Your task to perform on an android device: Go to CNN.com Image 0: 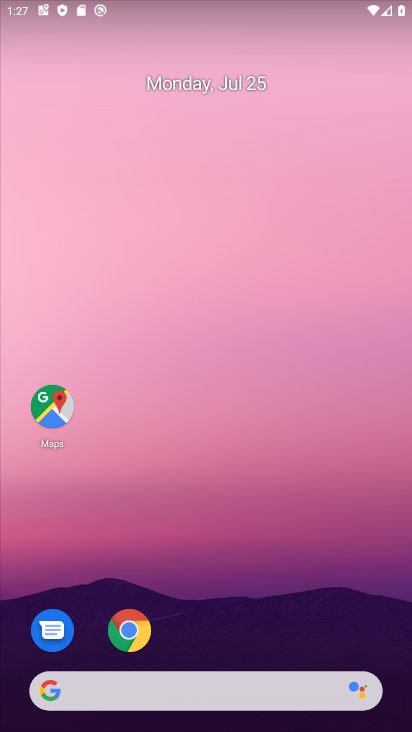
Step 0: click (132, 695)
Your task to perform on an android device: Go to CNN.com Image 1: 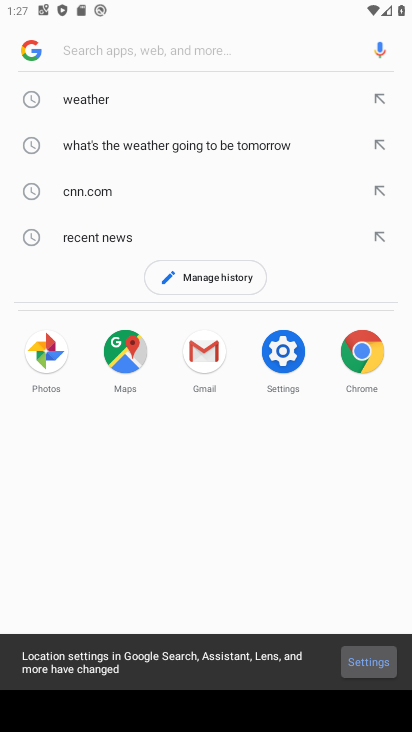
Step 1: type "cnn.com"
Your task to perform on an android device: Go to CNN.com Image 2: 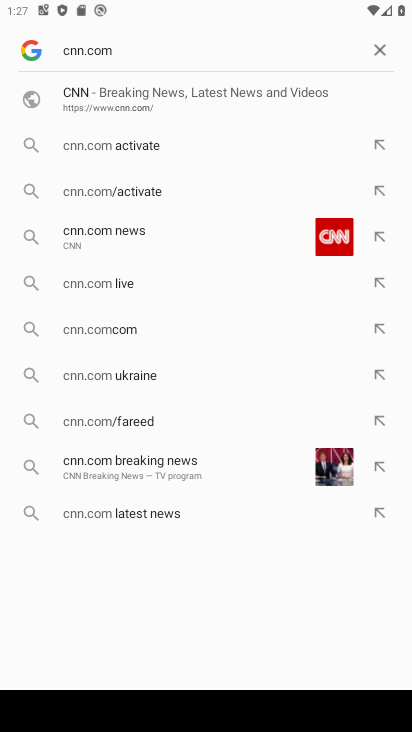
Step 2: click (142, 107)
Your task to perform on an android device: Go to CNN.com Image 3: 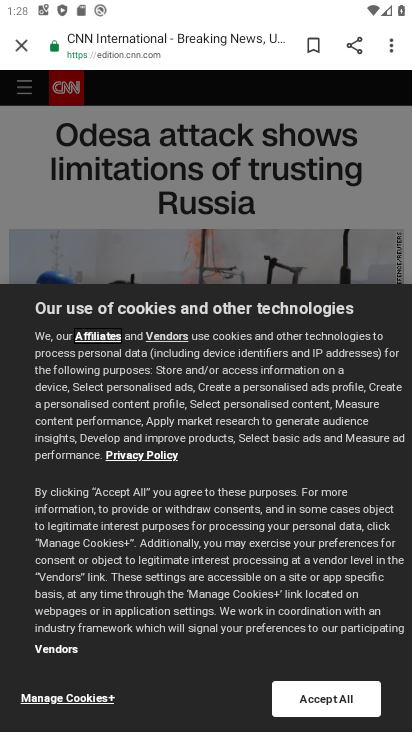
Step 3: task complete